Your task to perform on an android device: check the backup settings in the google photos Image 0: 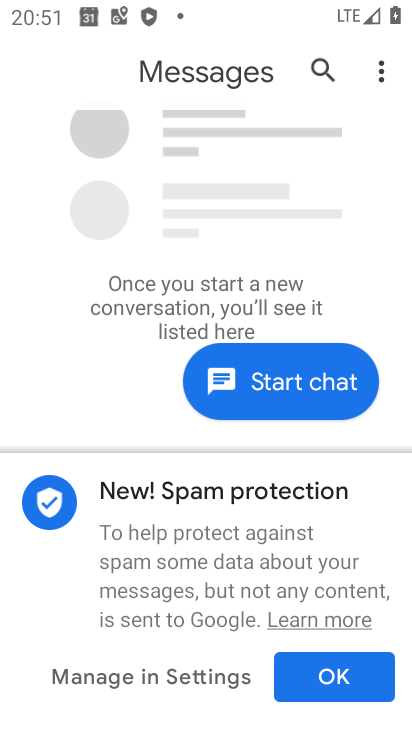
Step 0: press home button
Your task to perform on an android device: check the backup settings in the google photos Image 1: 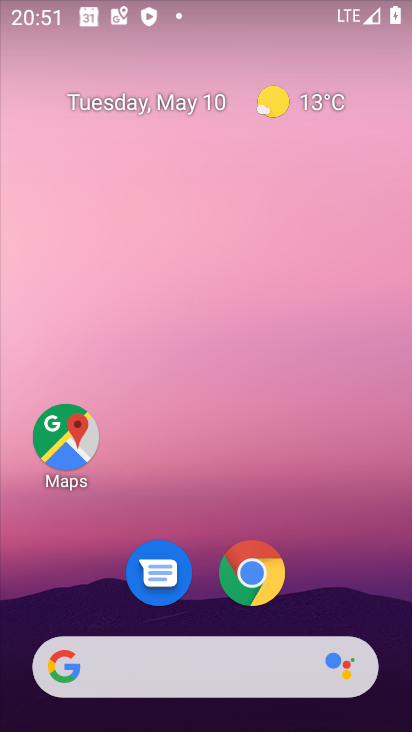
Step 1: drag from (354, 572) to (341, 8)
Your task to perform on an android device: check the backup settings in the google photos Image 2: 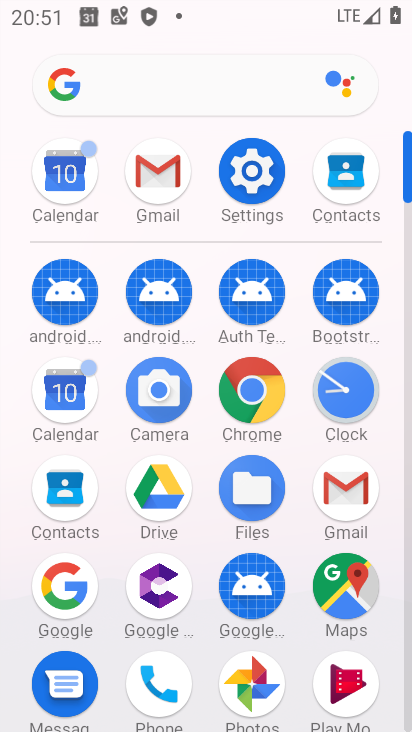
Step 2: click (247, 673)
Your task to perform on an android device: check the backup settings in the google photos Image 3: 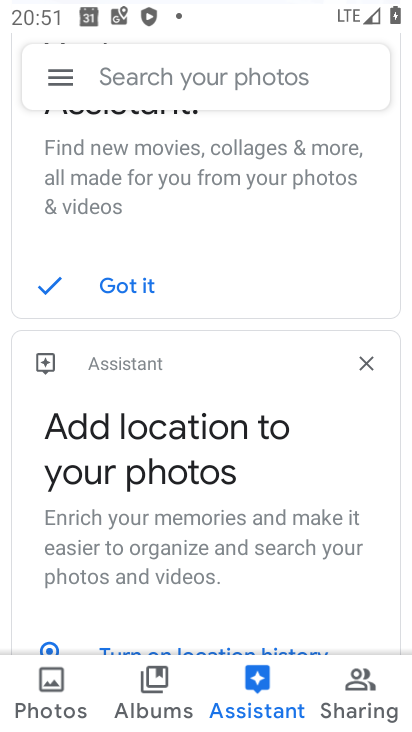
Step 3: click (70, 78)
Your task to perform on an android device: check the backup settings in the google photos Image 4: 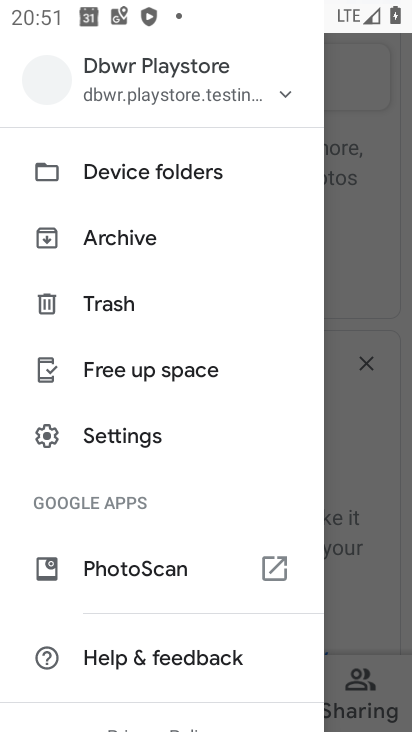
Step 4: click (108, 451)
Your task to perform on an android device: check the backup settings in the google photos Image 5: 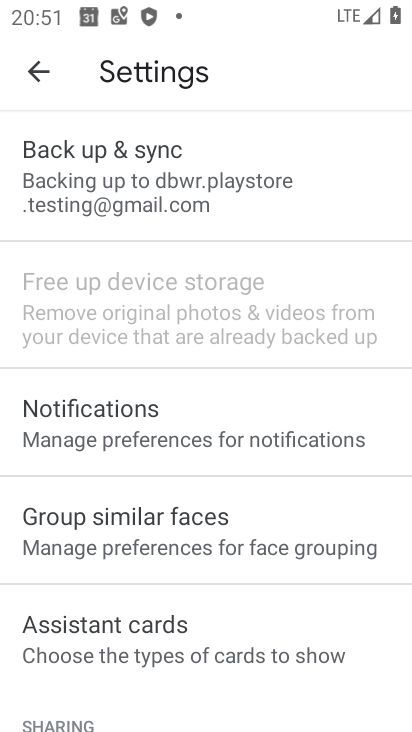
Step 5: click (91, 204)
Your task to perform on an android device: check the backup settings in the google photos Image 6: 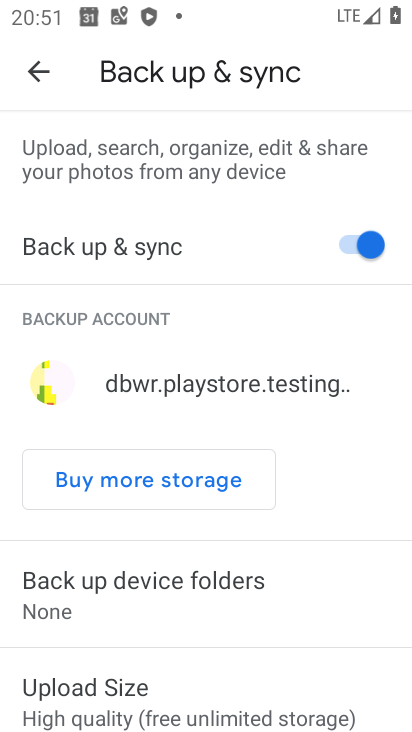
Step 6: task complete